Your task to perform on an android device: Go to internet settings Image 0: 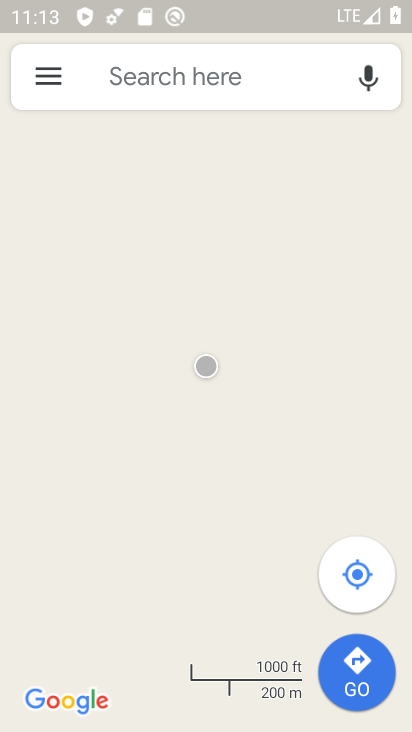
Step 0: press home button
Your task to perform on an android device: Go to internet settings Image 1: 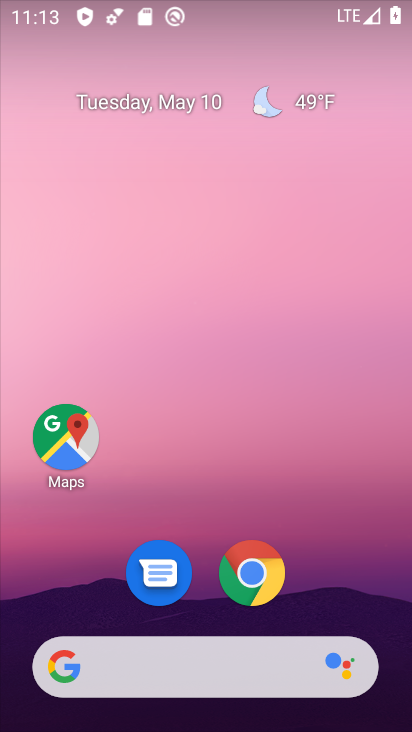
Step 1: drag from (135, 659) to (281, 91)
Your task to perform on an android device: Go to internet settings Image 2: 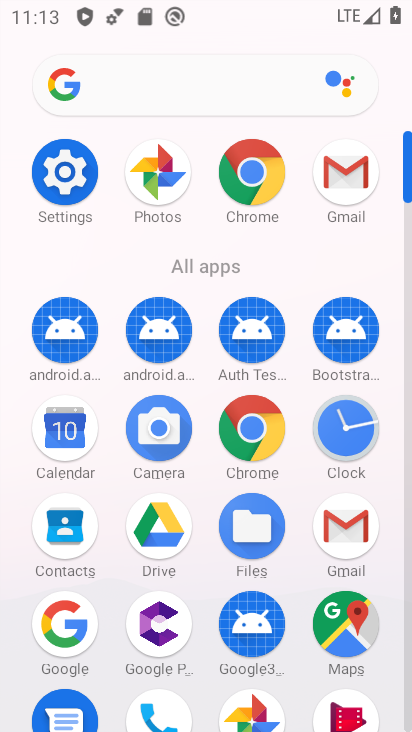
Step 2: click (57, 190)
Your task to perform on an android device: Go to internet settings Image 3: 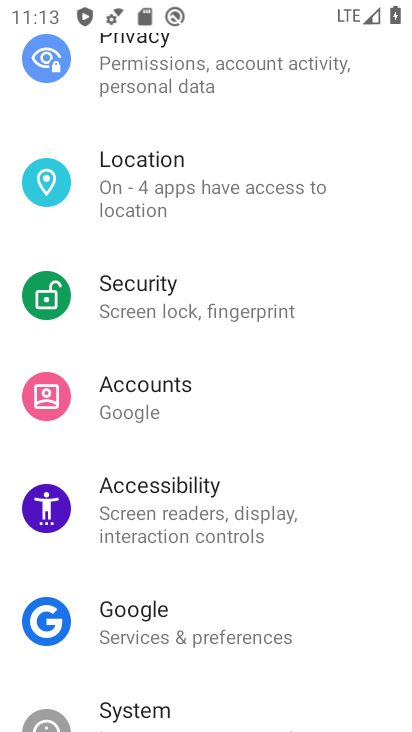
Step 3: drag from (291, 196) to (287, 532)
Your task to perform on an android device: Go to internet settings Image 4: 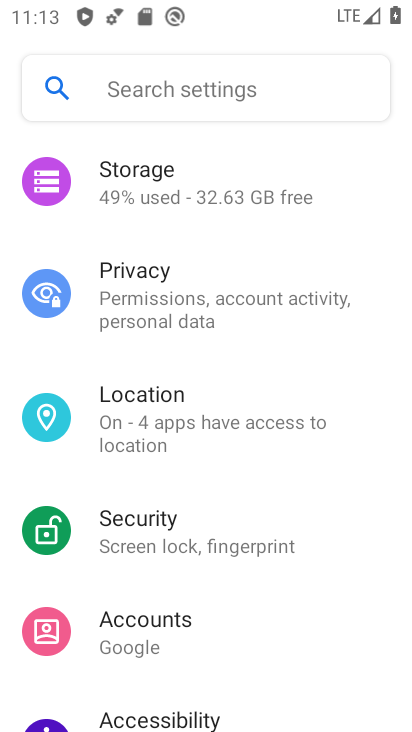
Step 4: drag from (290, 162) to (286, 598)
Your task to perform on an android device: Go to internet settings Image 5: 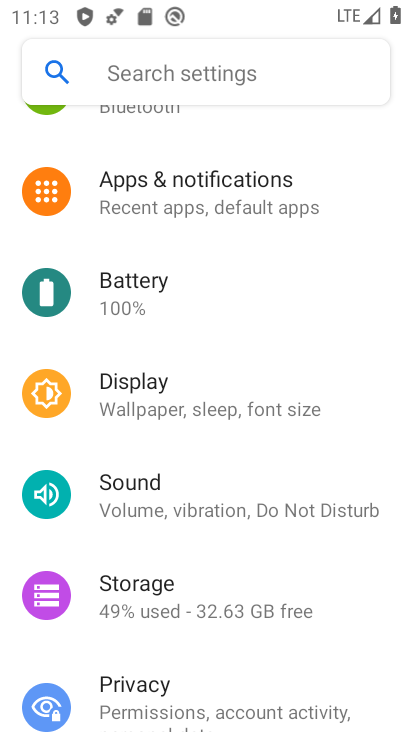
Step 5: drag from (305, 147) to (257, 581)
Your task to perform on an android device: Go to internet settings Image 6: 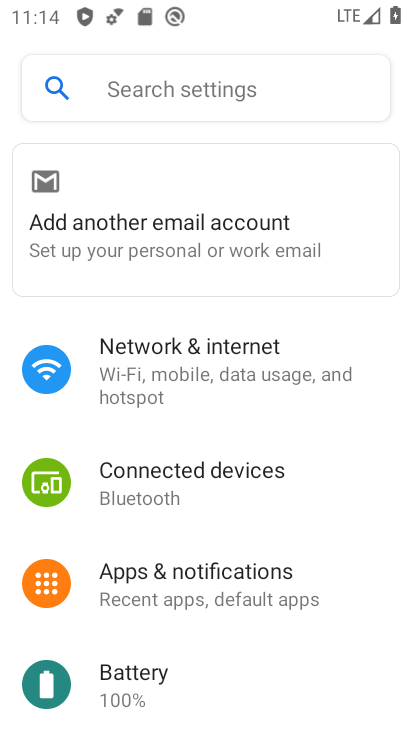
Step 6: click (195, 359)
Your task to perform on an android device: Go to internet settings Image 7: 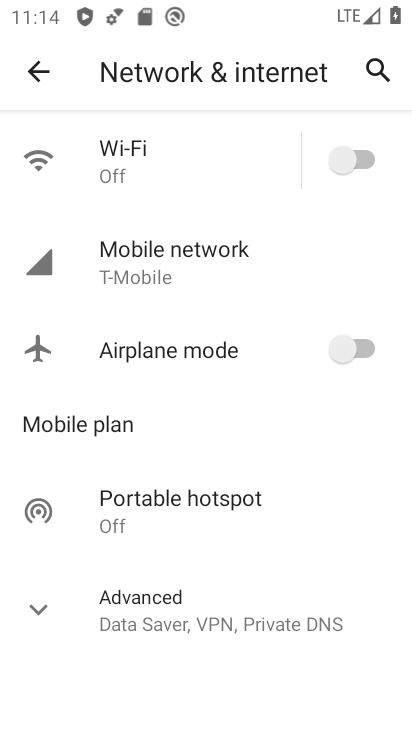
Step 7: task complete